Your task to perform on an android device: Go to Wikipedia Image 0: 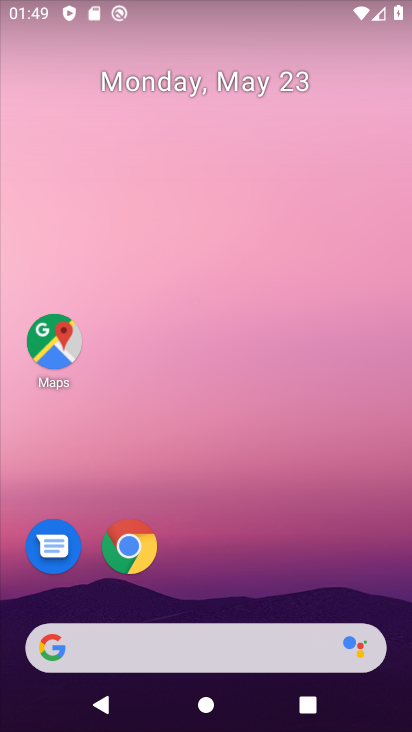
Step 0: click (123, 559)
Your task to perform on an android device: Go to Wikipedia Image 1: 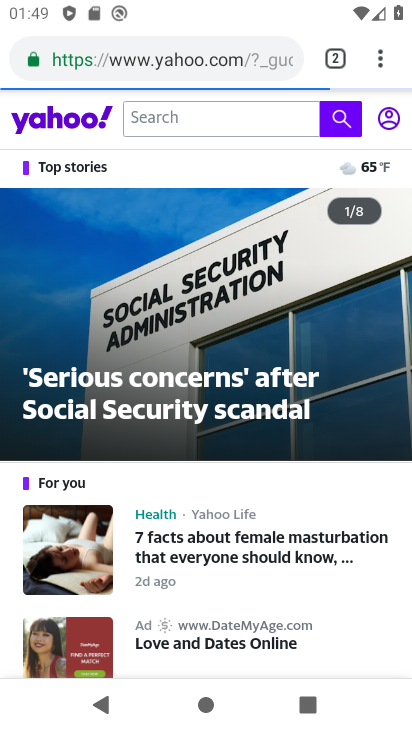
Step 1: click (329, 45)
Your task to perform on an android device: Go to Wikipedia Image 2: 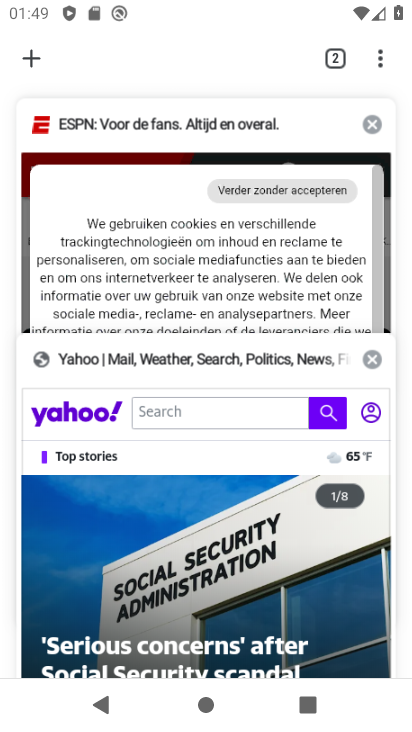
Step 2: click (31, 57)
Your task to perform on an android device: Go to Wikipedia Image 3: 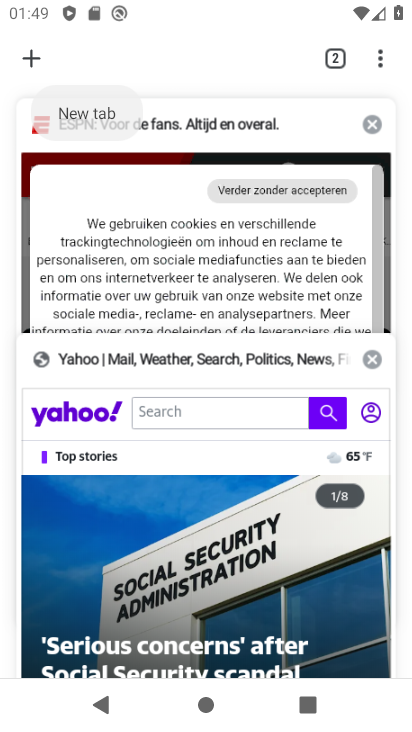
Step 3: click (29, 53)
Your task to perform on an android device: Go to Wikipedia Image 4: 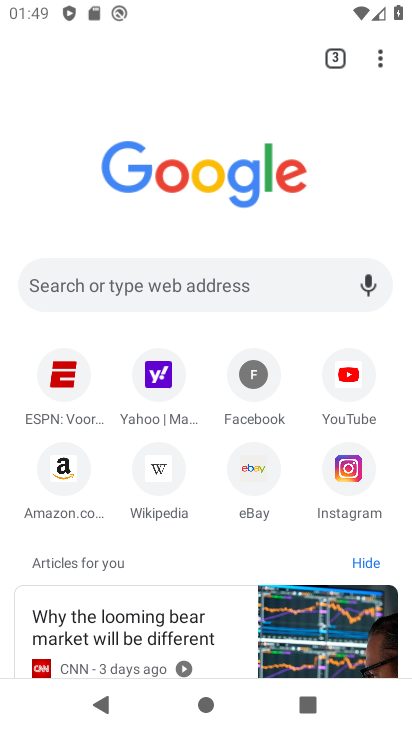
Step 4: click (152, 470)
Your task to perform on an android device: Go to Wikipedia Image 5: 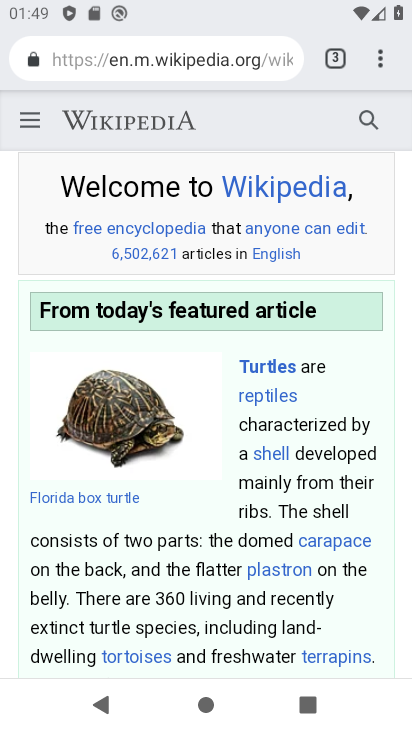
Step 5: task complete